Your task to perform on an android device: open app "WhatsApp Messenger" (install if not already installed), go to login, and select forgot password Image 0: 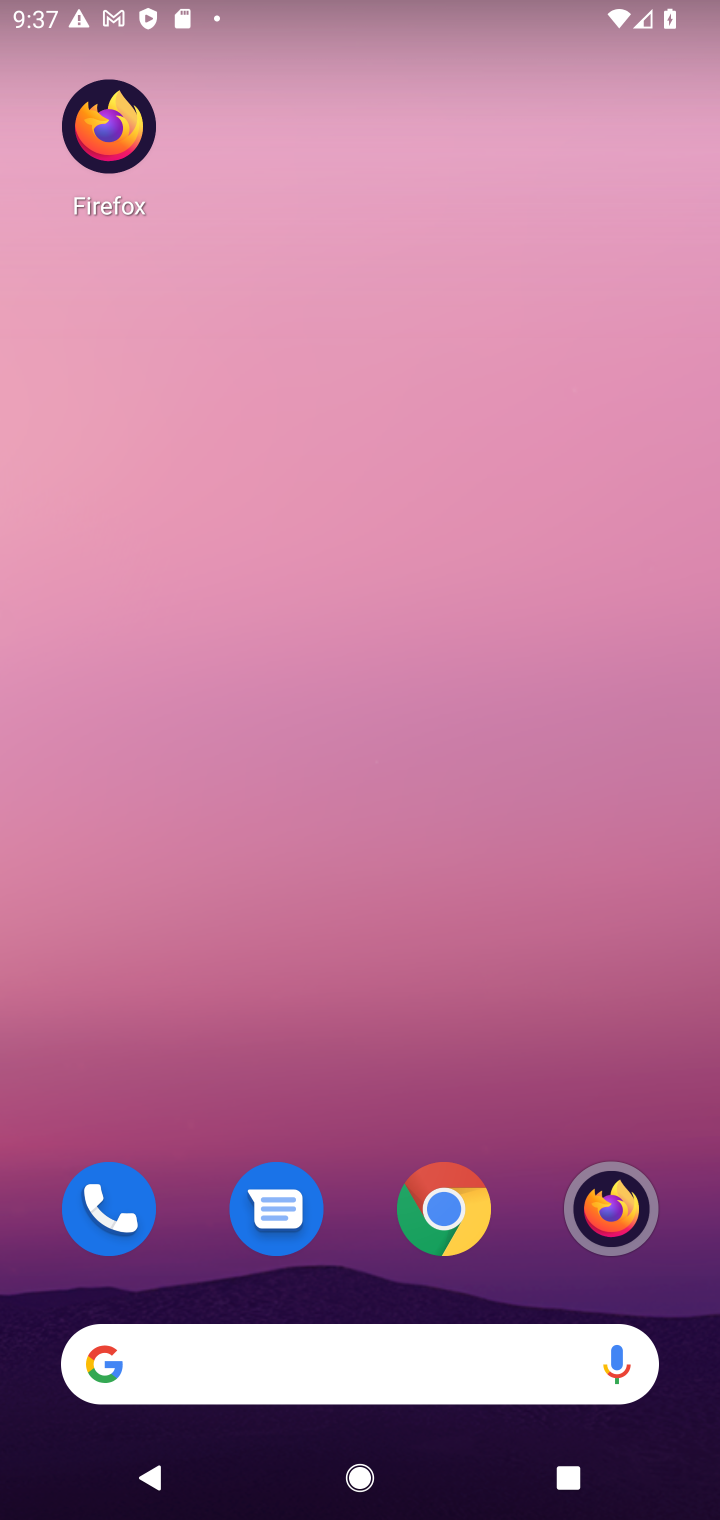
Step 0: drag from (406, 1251) to (513, 213)
Your task to perform on an android device: open app "WhatsApp Messenger" (install if not already installed), go to login, and select forgot password Image 1: 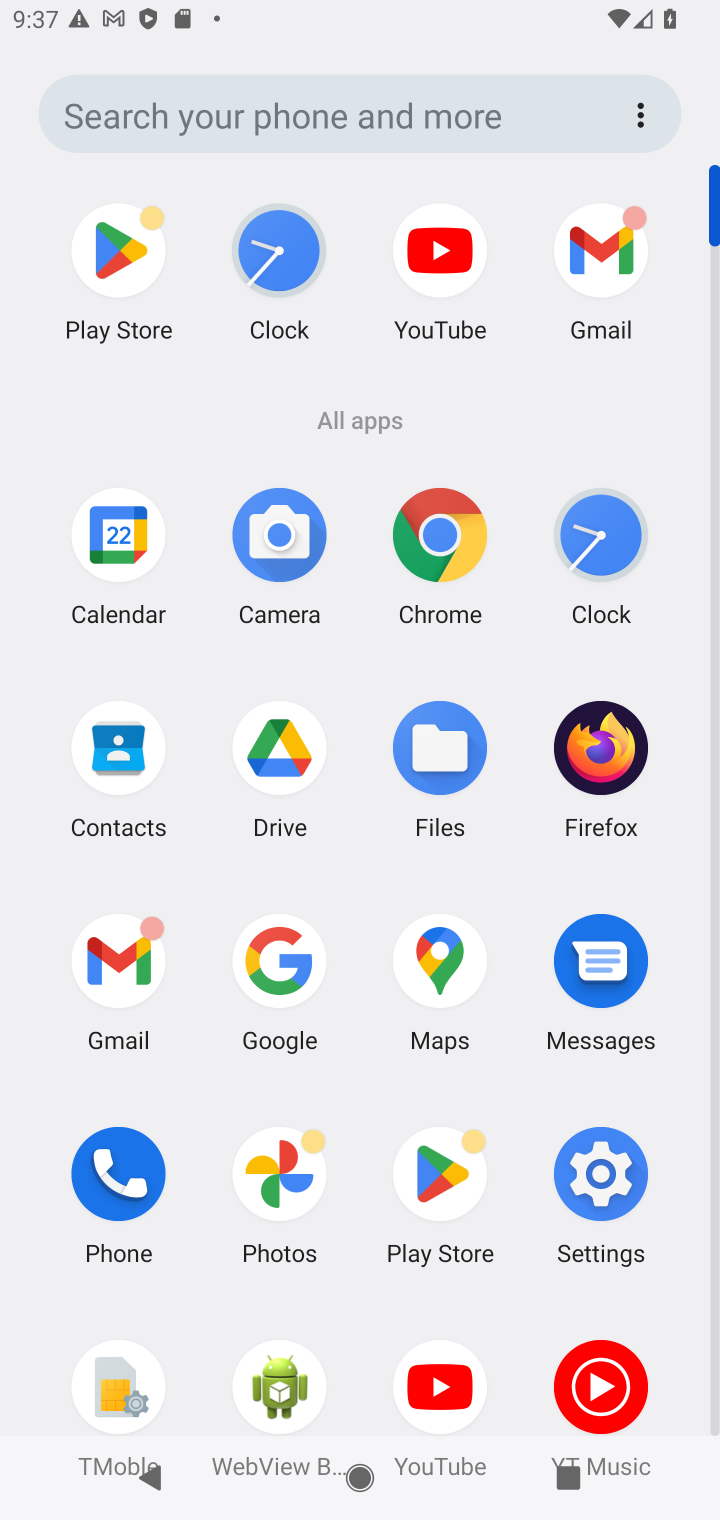
Step 1: click (445, 1180)
Your task to perform on an android device: open app "WhatsApp Messenger" (install if not already installed), go to login, and select forgot password Image 2: 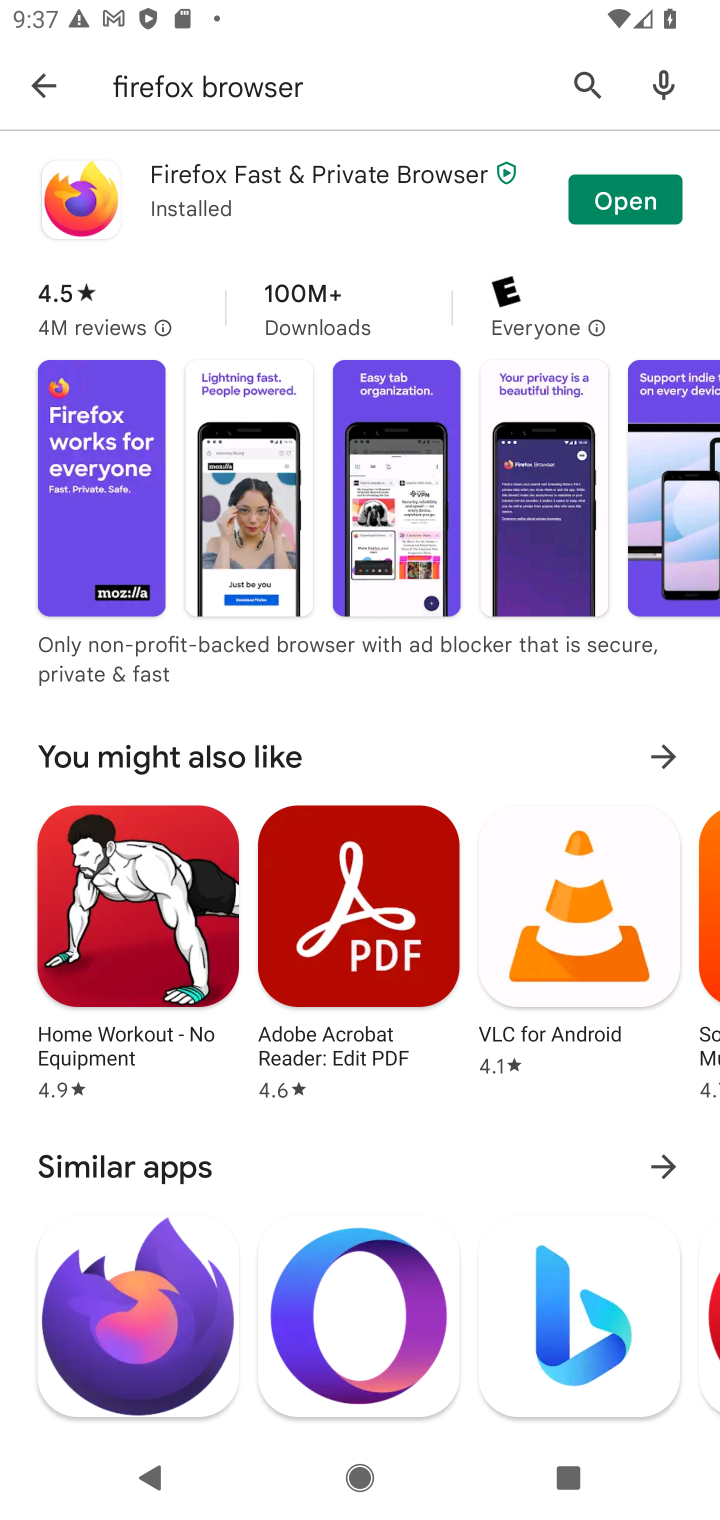
Step 2: click (582, 87)
Your task to perform on an android device: open app "WhatsApp Messenger" (install if not already installed), go to login, and select forgot password Image 3: 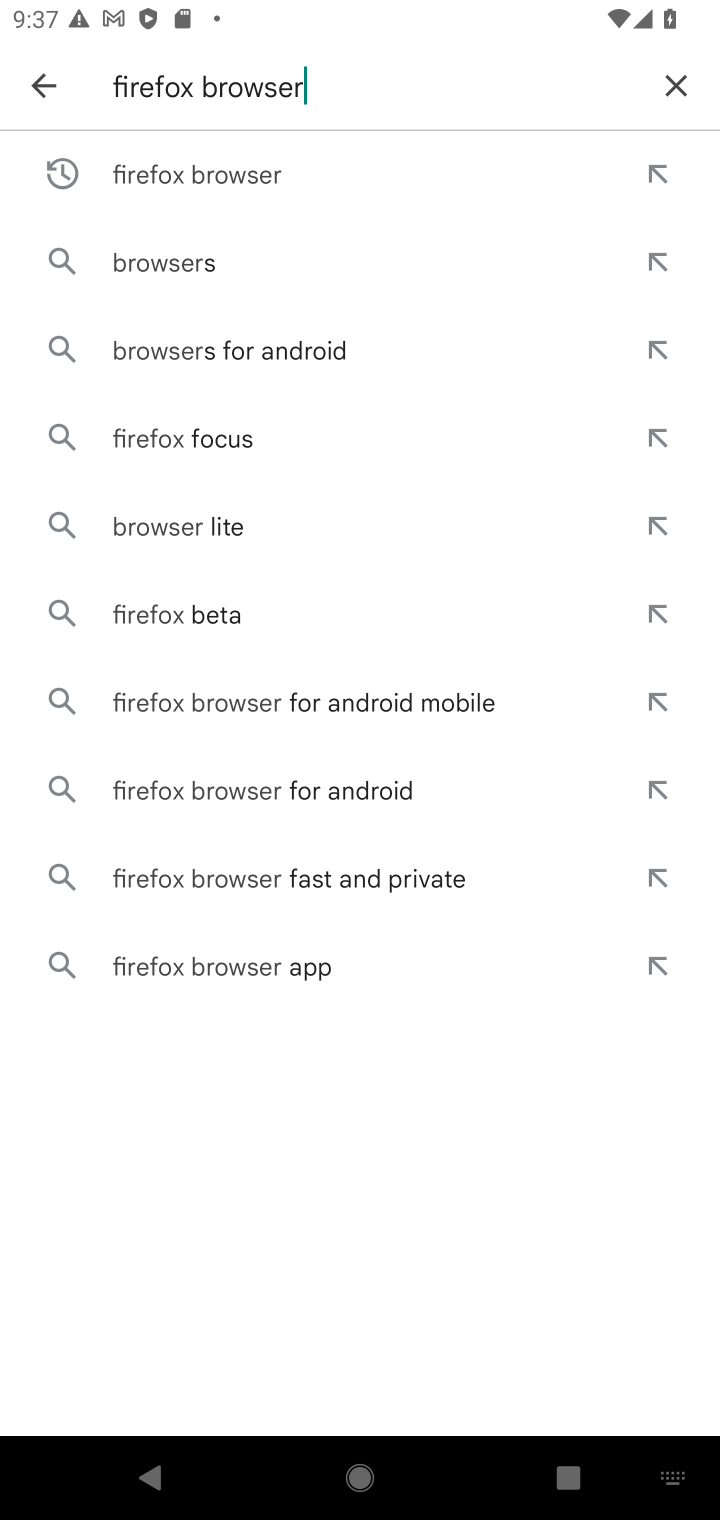
Step 3: click (676, 102)
Your task to perform on an android device: open app "WhatsApp Messenger" (install if not already installed), go to login, and select forgot password Image 4: 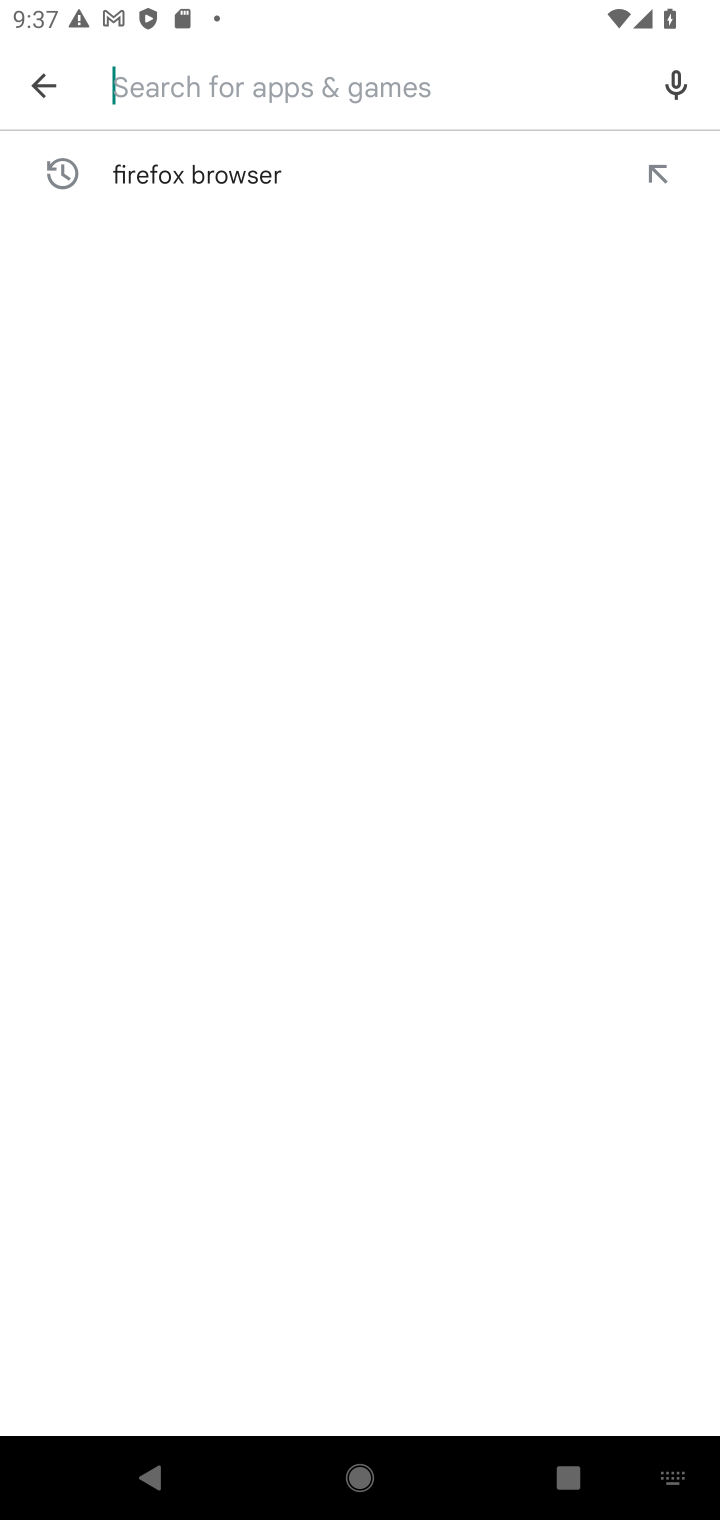
Step 4: click (193, 98)
Your task to perform on an android device: open app "WhatsApp Messenger" (install if not already installed), go to login, and select forgot password Image 5: 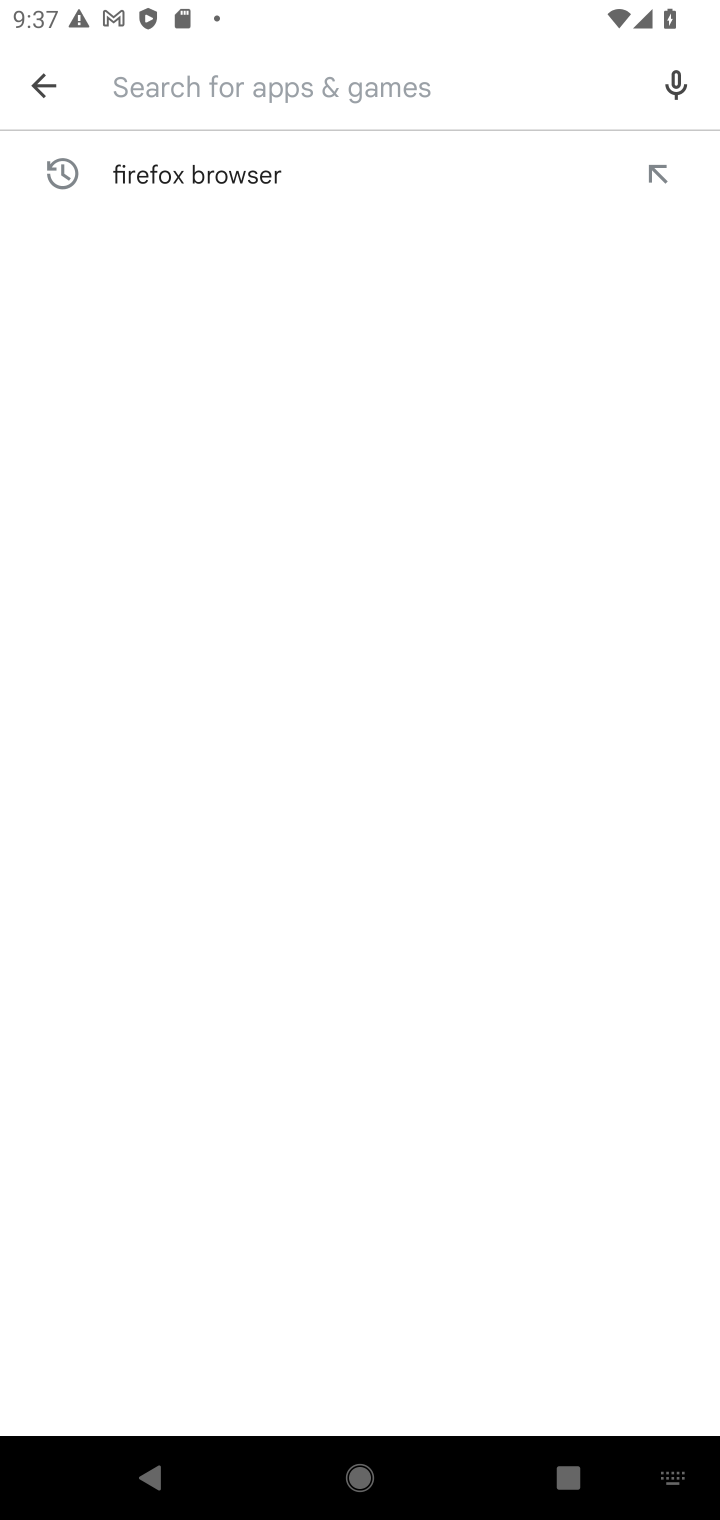
Step 5: click (193, 94)
Your task to perform on an android device: open app "WhatsApp Messenger" (install if not already installed), go to login, and select forgot password Image 6: 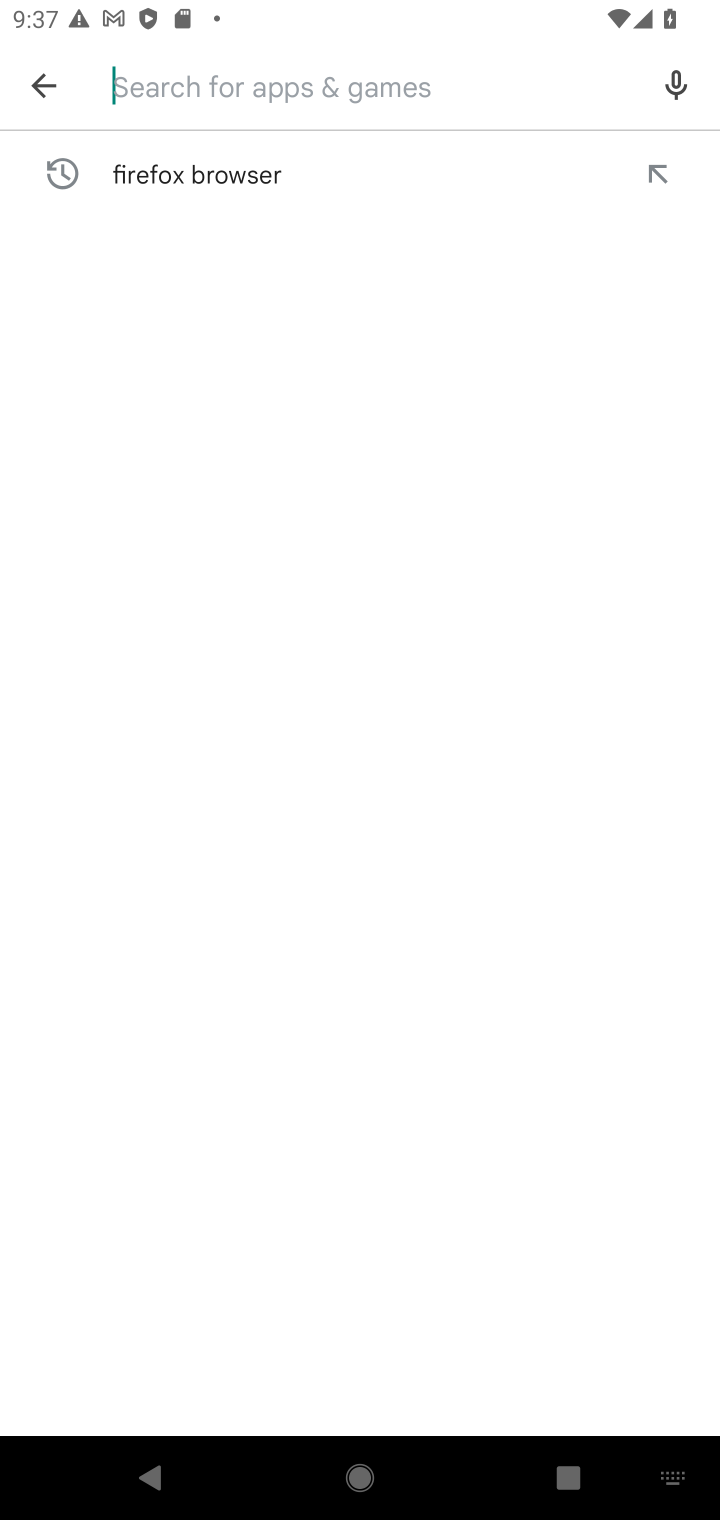
Step 6: type "WhatsApp Messenger"
Your task to perform on an android device: open app "WhatsApp Messenger" (install if not already installed), go to login, and select forgot password Image 7: 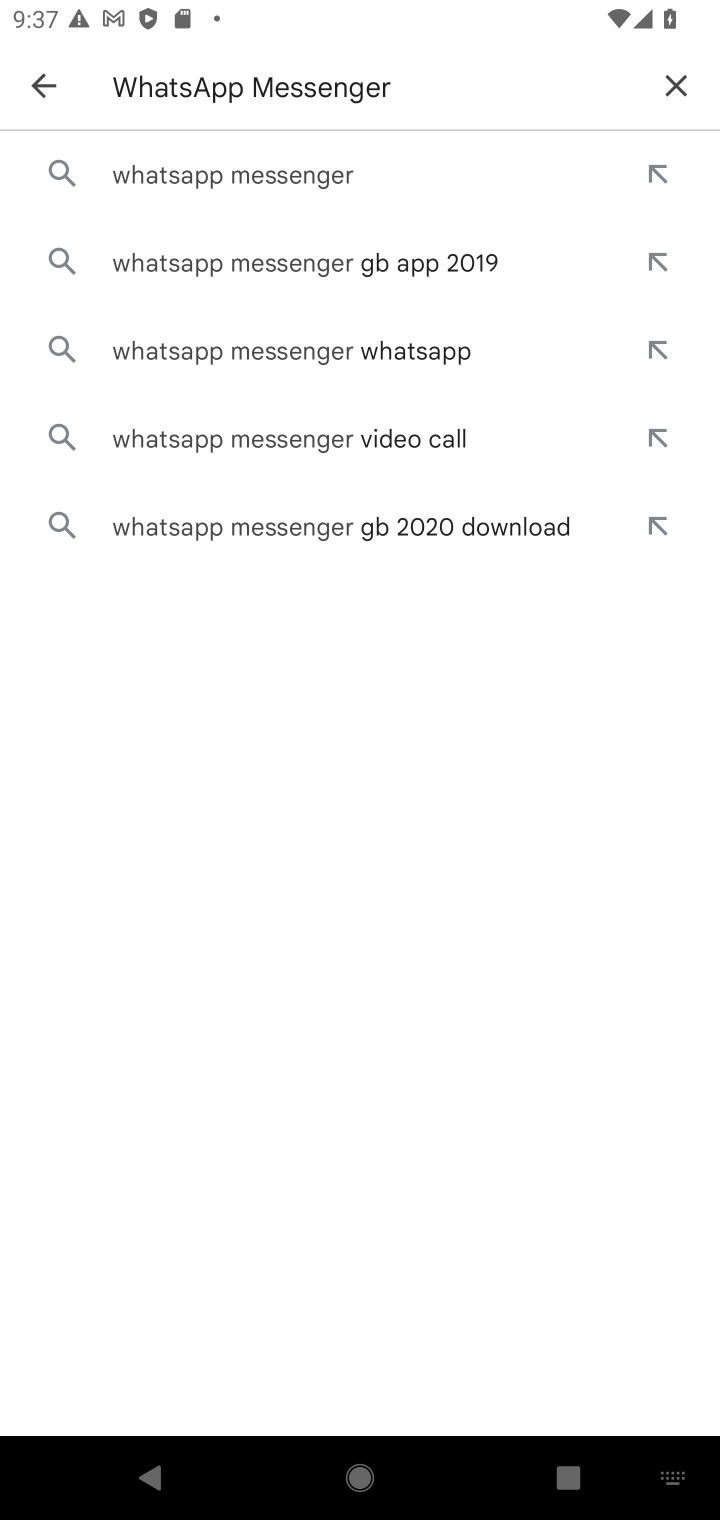
Step 7: click (223, 174)
Your task to perform on an android device: open app "WhatsApp Messenger" (install if not already installed), go to login, and select forgot password Image 8: 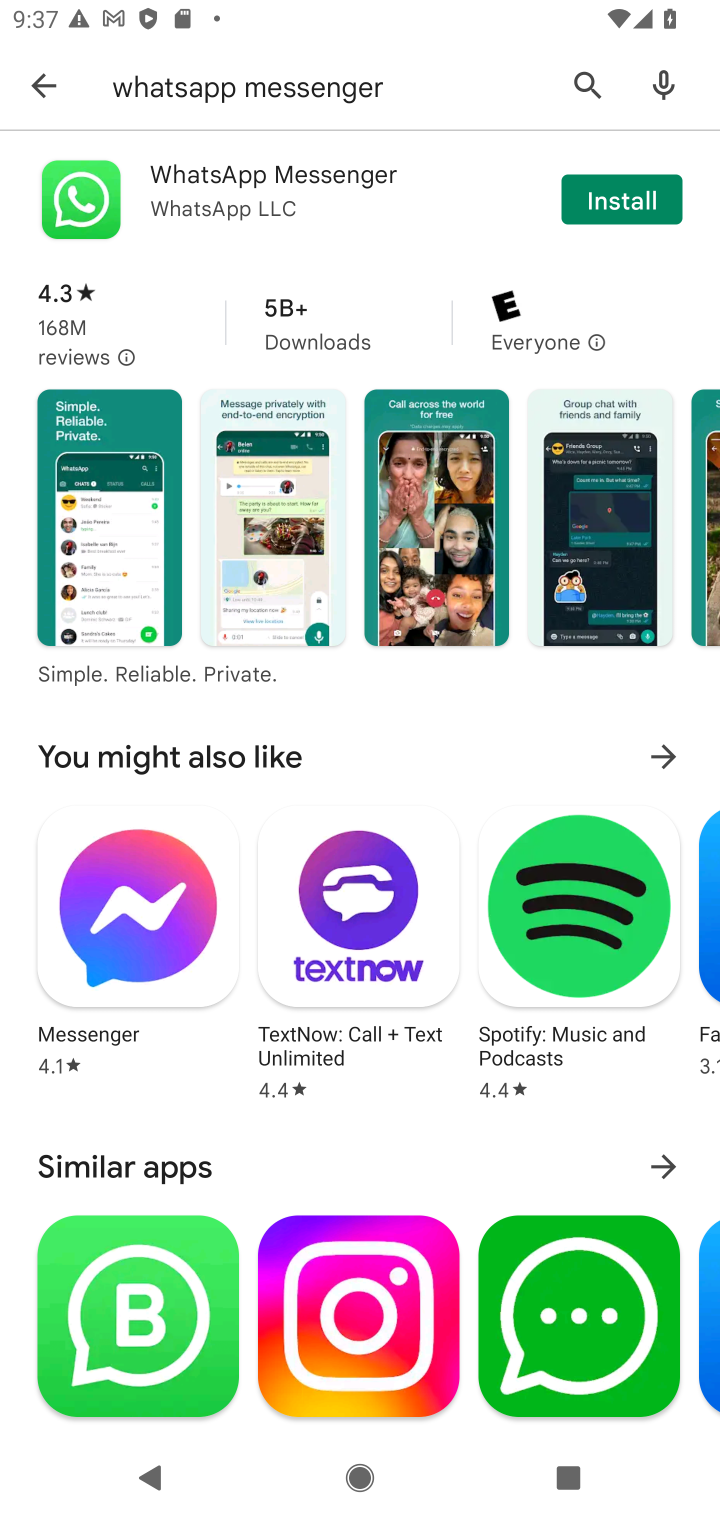
Step 8: click (623, 193)
Your task to perform on an android device: open app "WhatsApp Messenger" (install if not already installed), go to login, and select forgot password Image 9: 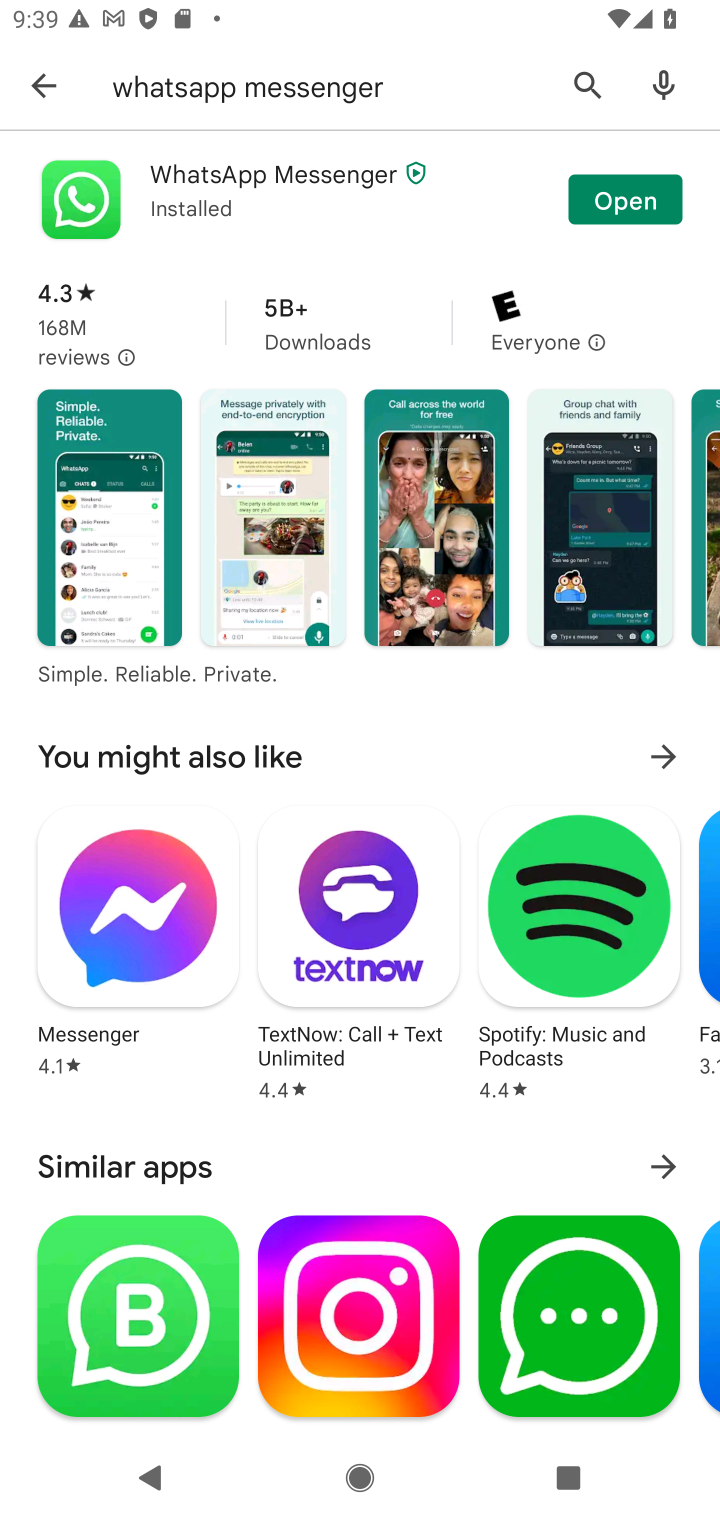
Step 9: click (600, 186)
Your task to perform on an android device: open app "WhatsApp Messenger" (install if not already installed), go to login, and select forgot password Image 10: 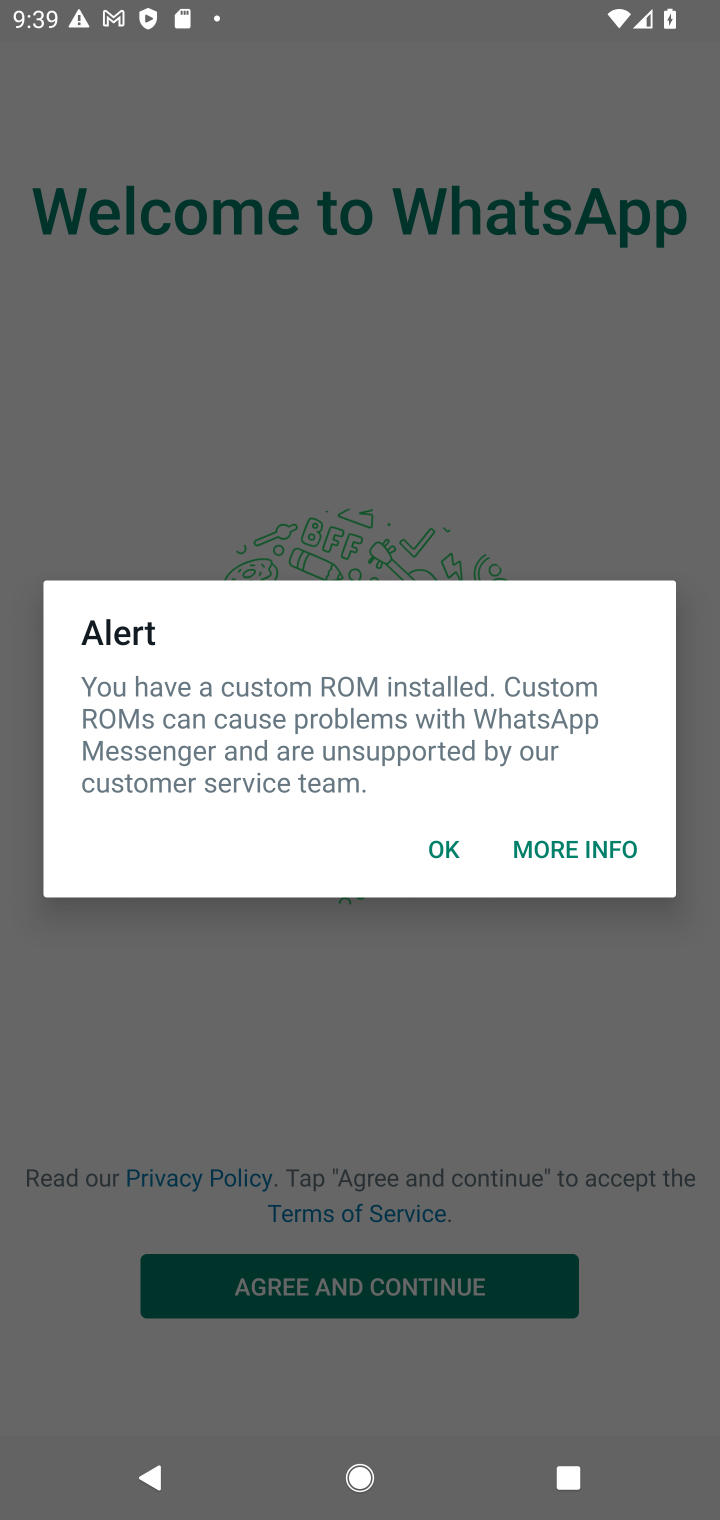
Step 10: task complete